Your task to perform on an android device: turn pop-ups off in chrome Image 0: 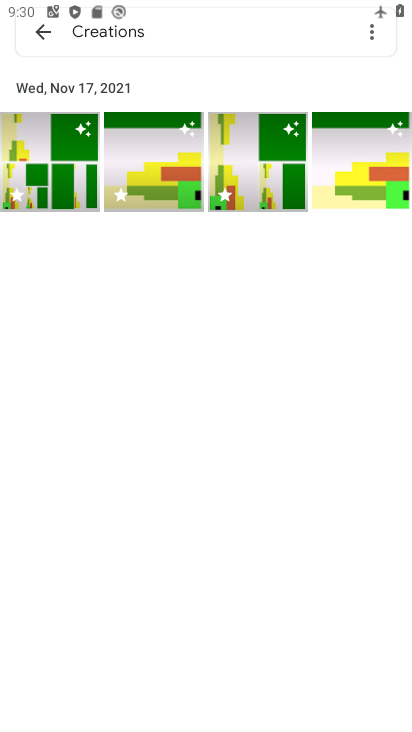
Step 0: press home button
Your task to perform on an android device: turn pop-ups off in chrome Image 1: 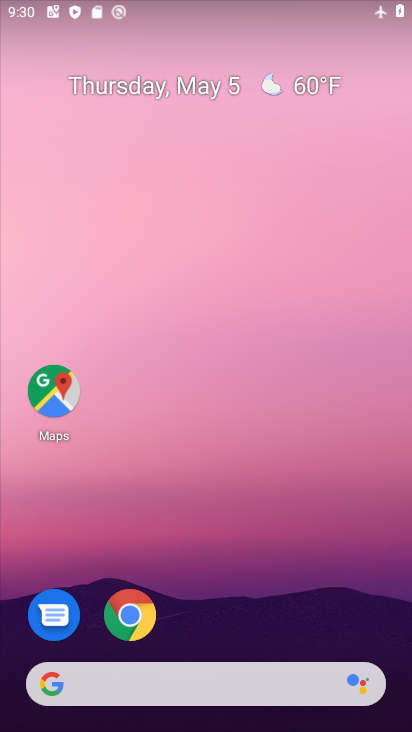
Step 1: click (136, 615)
Your task to perform on an android device: turn pop-ups off in chrome Image 2: 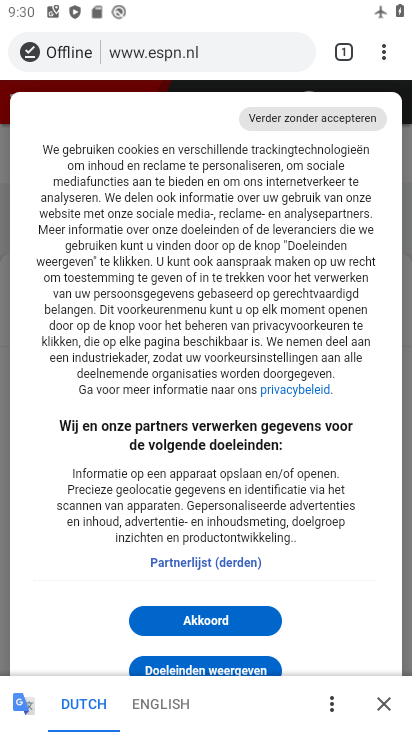
Step 2: click (373, 53)
Your task to perform on an android device: turn pop-ups off in chrome Image 3: 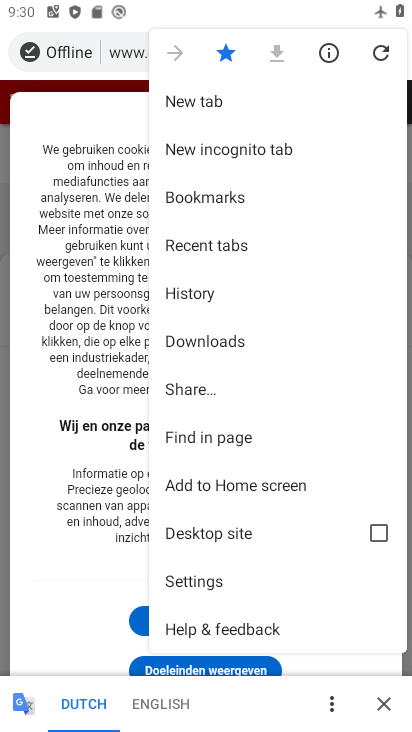
Step 3: click (211, 580)
Your task to perform on an android device: turn pop-ups off in chrome Image 4: 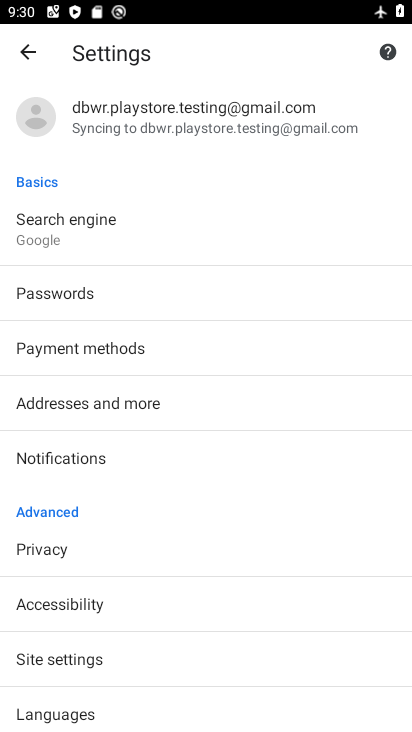
Step 4: click (72, 666)
Your task to perform on an android device: turn pop-ups off in chrome Image 5: 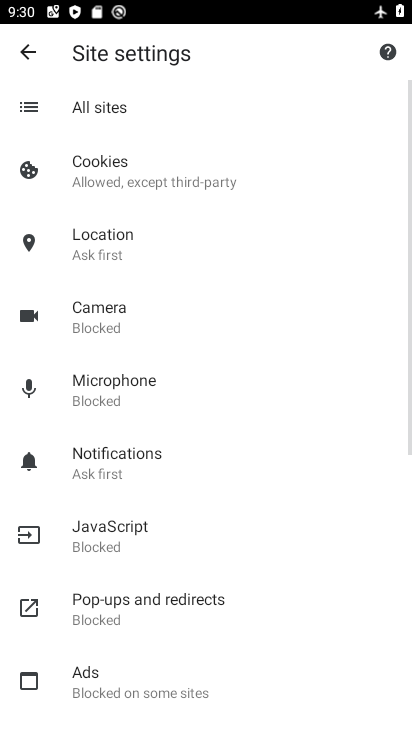
Step 5: click (137, 610)
Your task to perform on an android device: turn pop-ups off in chrome Image 6: 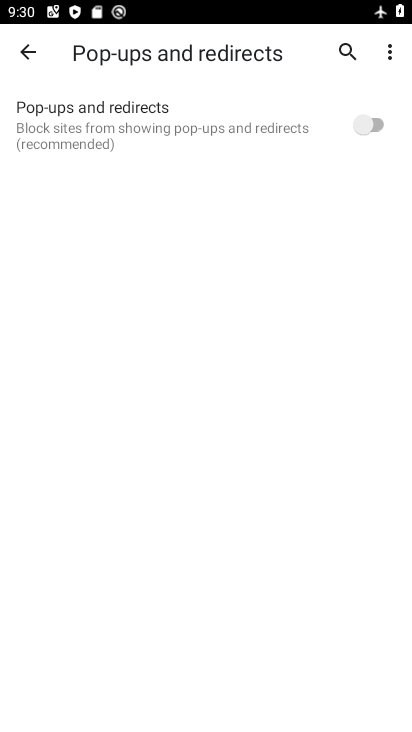
Step 6: task complete